Your task to perform on an android device: Search for "dell xps" on costco.com, select the first entry, add it to the cart, then select checkout. Image 0: 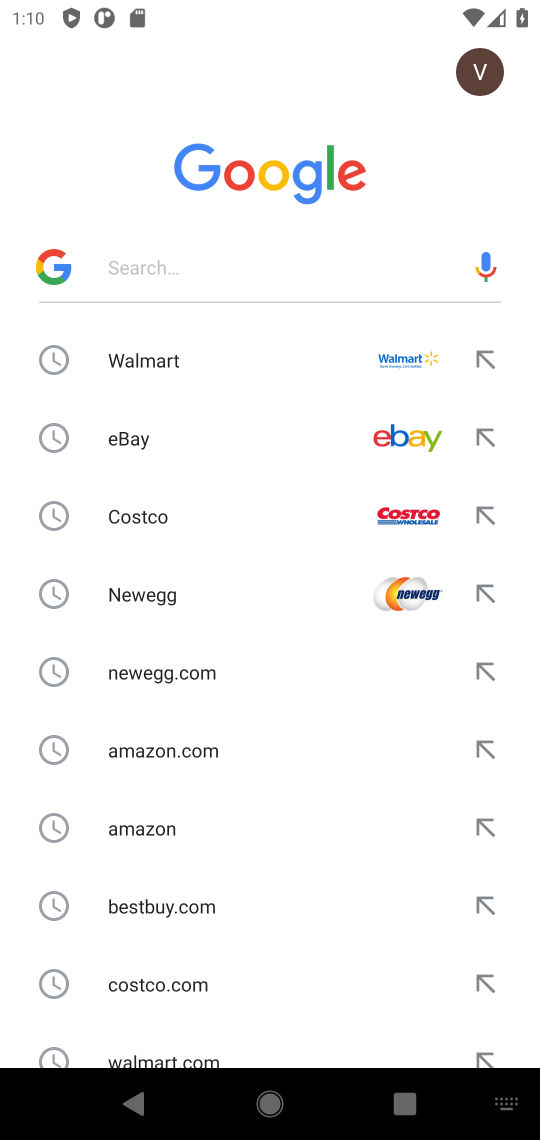
Step 0: press home button
Your task to perform on an android device: Search for "dell xps" on costco.com, select the first entry, add it to the cart, then select checkout. Image 1: 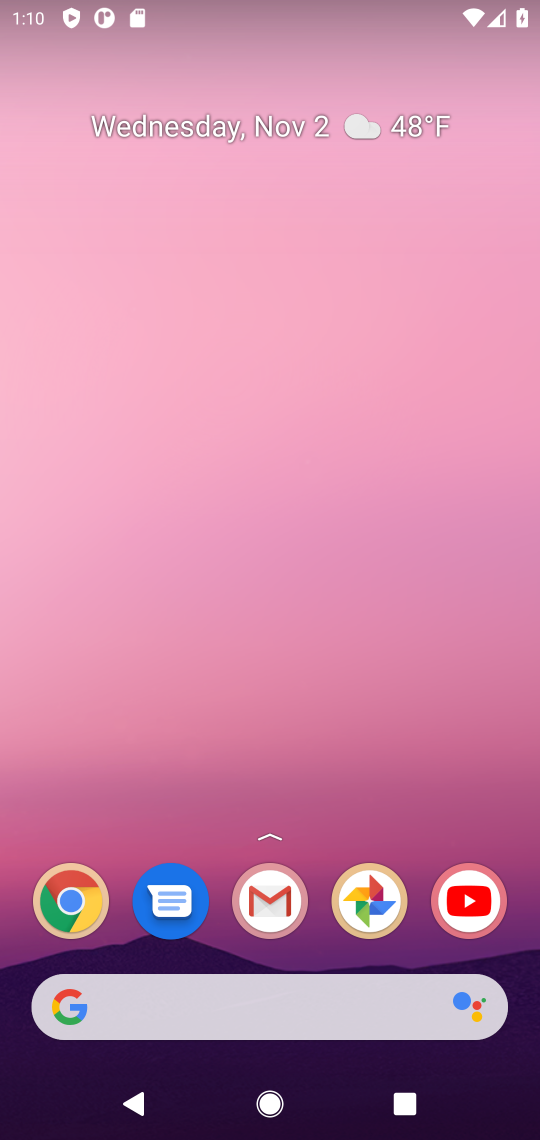
Step 1: drag from (316, 947) to (345, 194)
Your task to perform on an android device: Search for "dell xps" on costco.com, select the first entry, add it to the cart, then select checkout. Image 2: 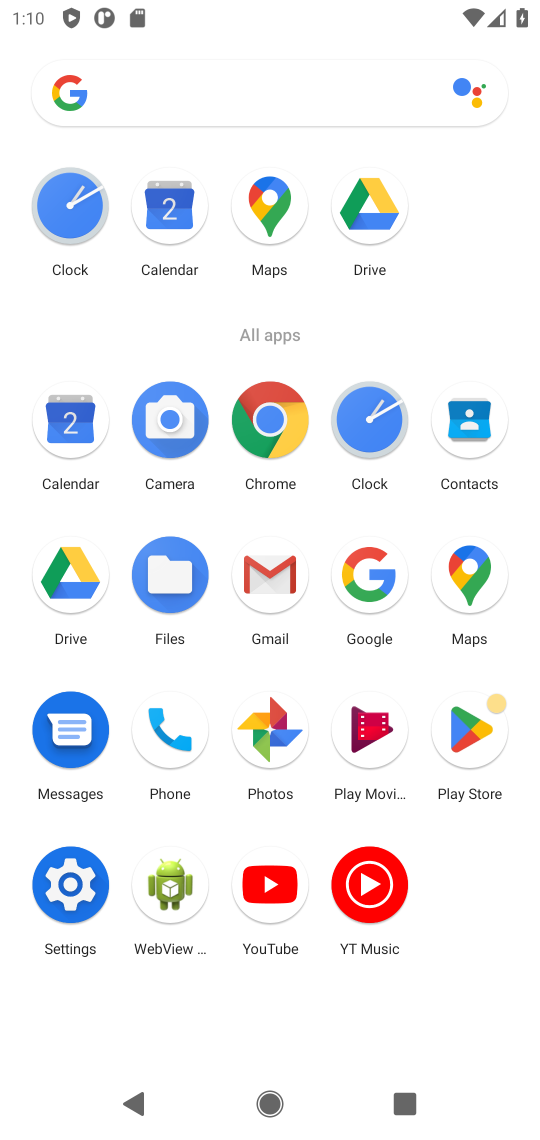
Step 2: click (253, 428)
Your task to perform on an android device: Search for "dell xps" on costco.com, select the first entry, add it to the cart, then select checkout. Image 3: 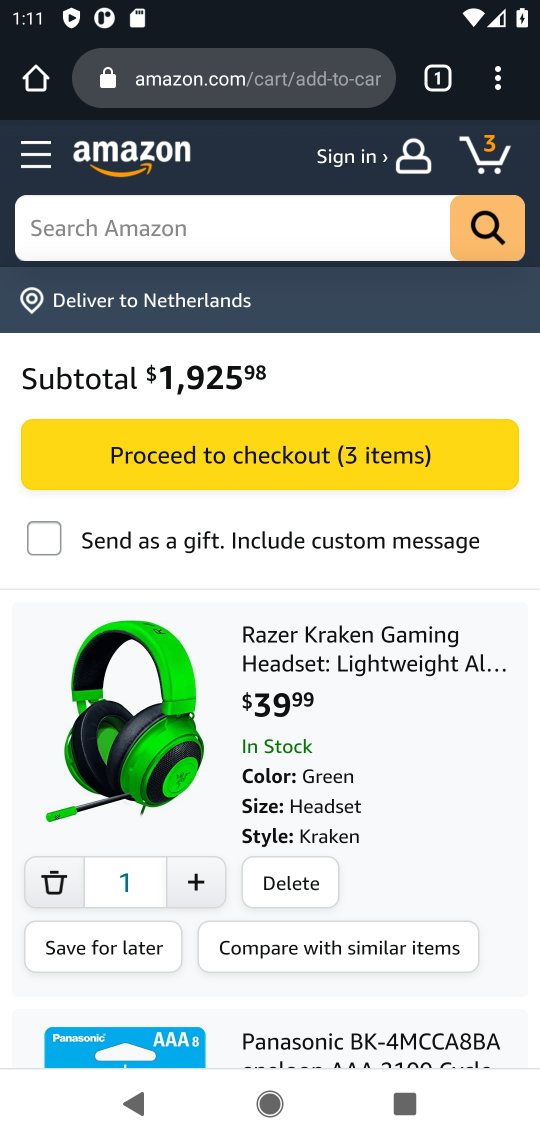
Step 3: click (250, 80)
Your task to perform on an android device: Search for "dell xps" on costco.com, select the first entry, add it to the cart, then select checkout. Image 4: 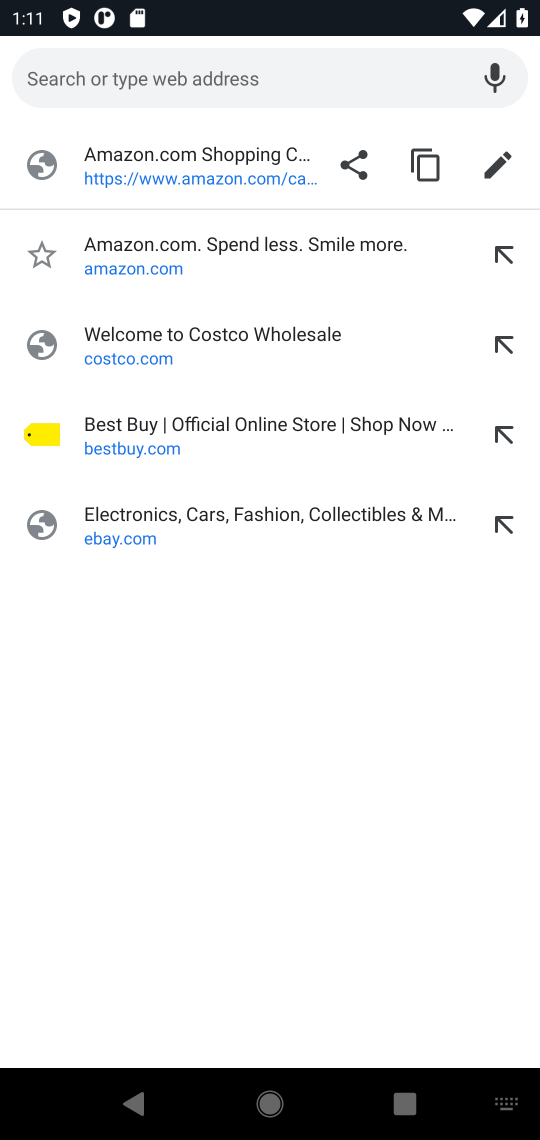
Step 4: type "costco.com"
Your task to perform on an android device: Search for "dell xps" on costco.com, select the first entry, add it to the cart, then select checkout. Image 5: 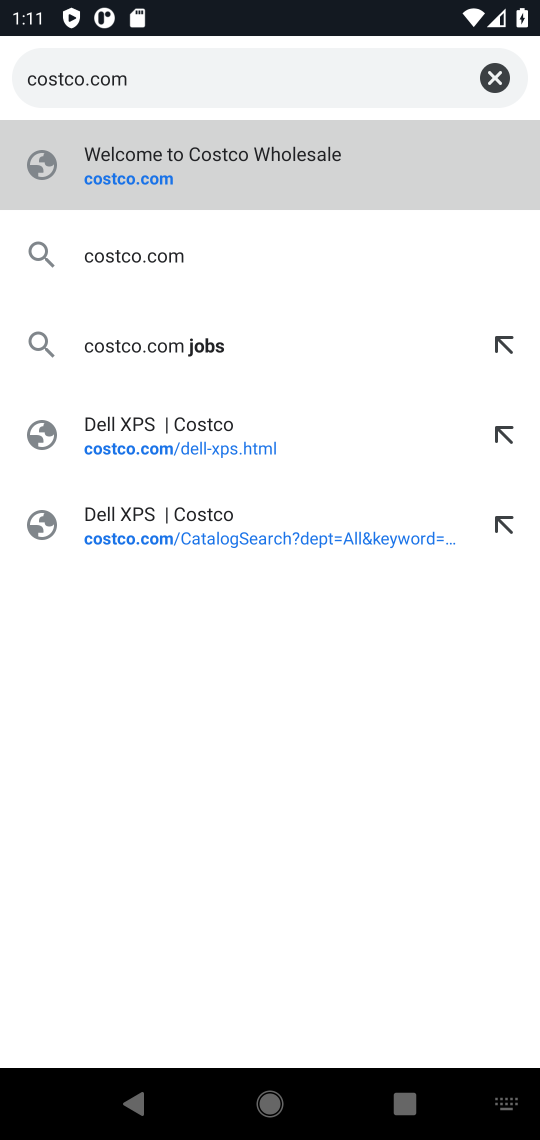
Step 5: press enter
Your task to perform on an android device: Search for "dell xps" on costco.com, select the first entry, add it to the cart, then select checkout. Image 6: 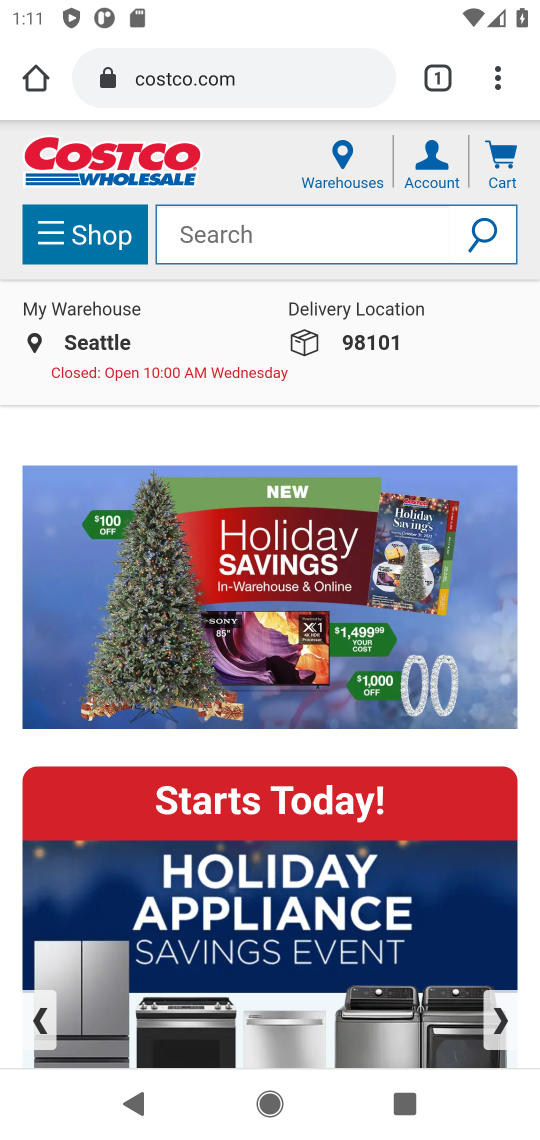
Step 6: click (379, 224)
Your task to perform on an android device: Search for "dell xps" on costco.com, select the first entry, add it to the cart, then select checkout. Image 7: 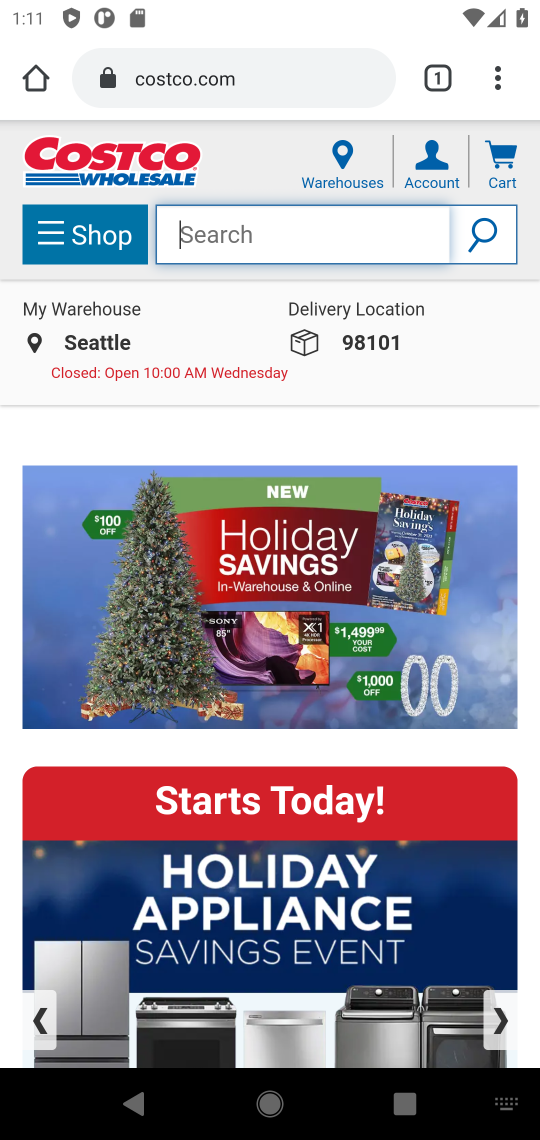
Step 7: type "dell xps"
Your task to perform on an android device: Search for "dell xps" on costco.com, select the first entry, add it to the cart, then select checkout. Image 8: 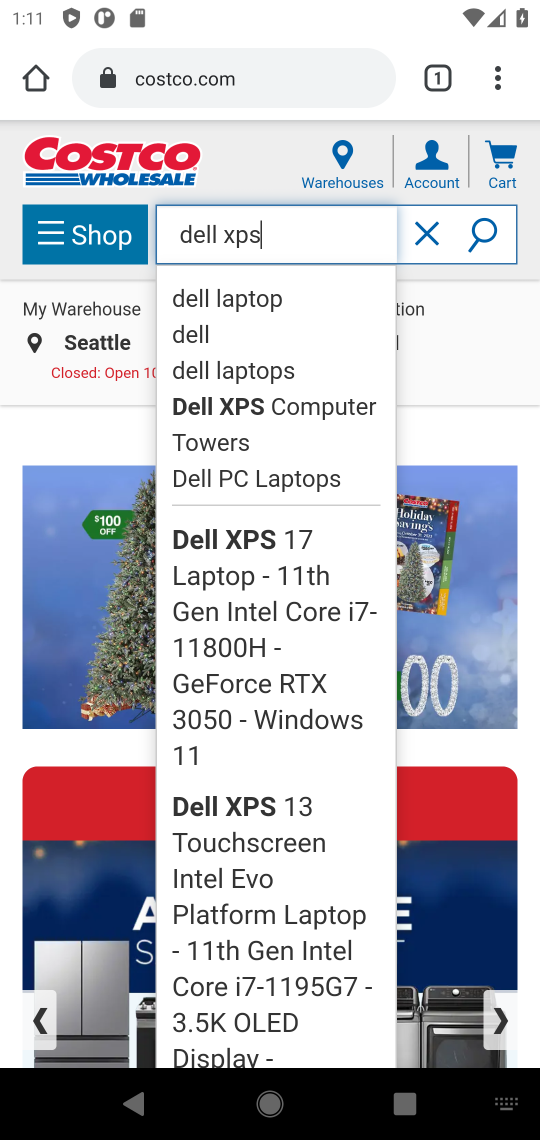
Step 8: press enter
Your task to perform on an android device: Search for "dell xps" on costco.com, select the first entry, add it to the cart, then select checkout. Image 9: 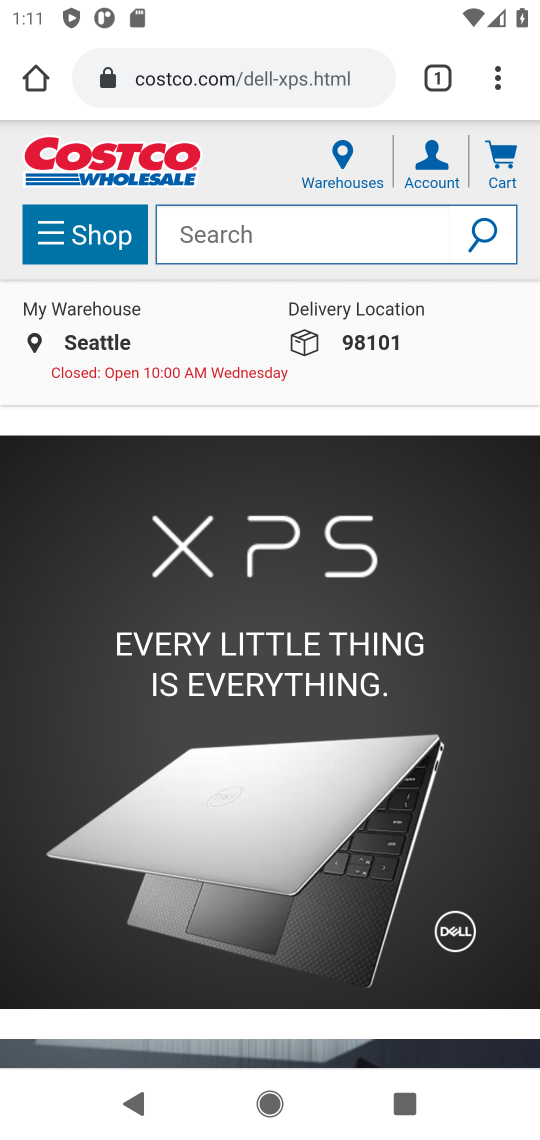
Step 9: click (284, 617)
Your task to perform on an android device: Search for "dell xps" on costco.com, select the first entry, add it to the cart, then select checkout. Image 10: 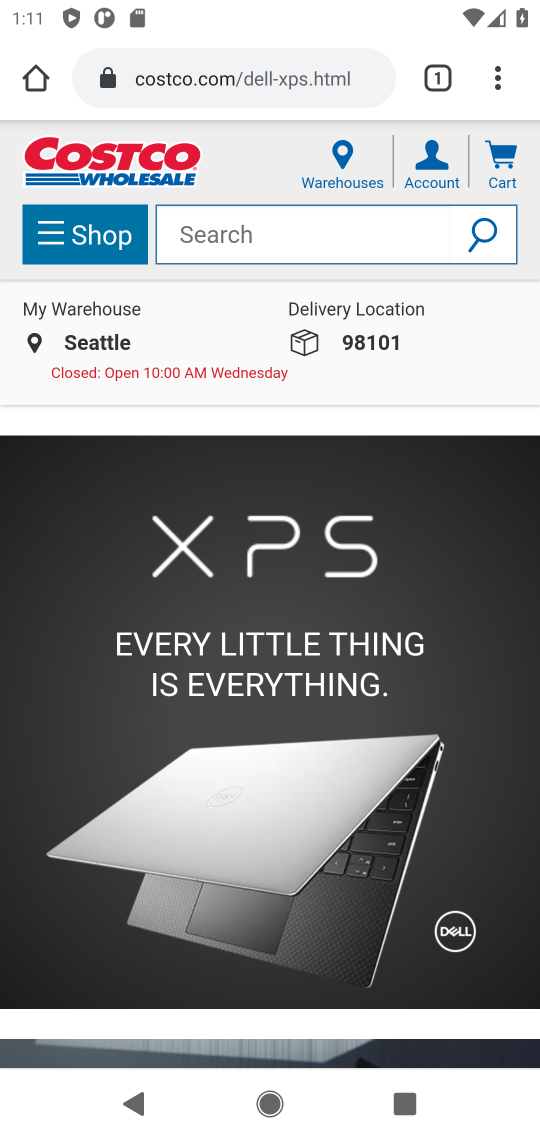
Step 10: drag from (284, 617) to (417, 7)
Your task to perform on an android device: Search for "dell xps" on costco.com, select the first entry, add it to the cart, then select checkout. Image 11: 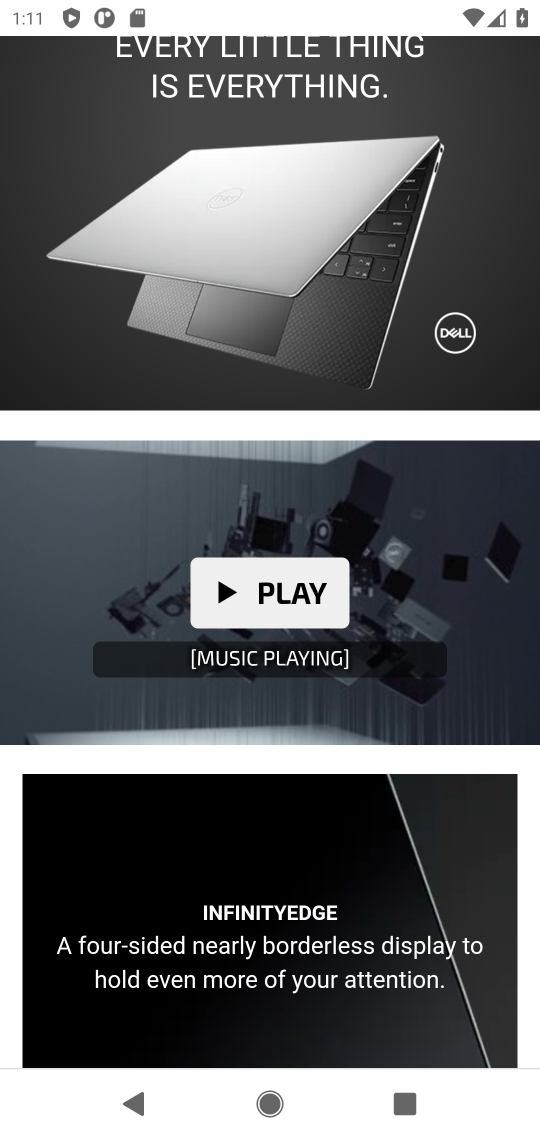
Step 11: drag from (250, 870) to (330, 66)
Your task to perform on an android device: Search for "dell xps" on costco.com, select the first entry, add it to the cart, then select checkout. Image 12: 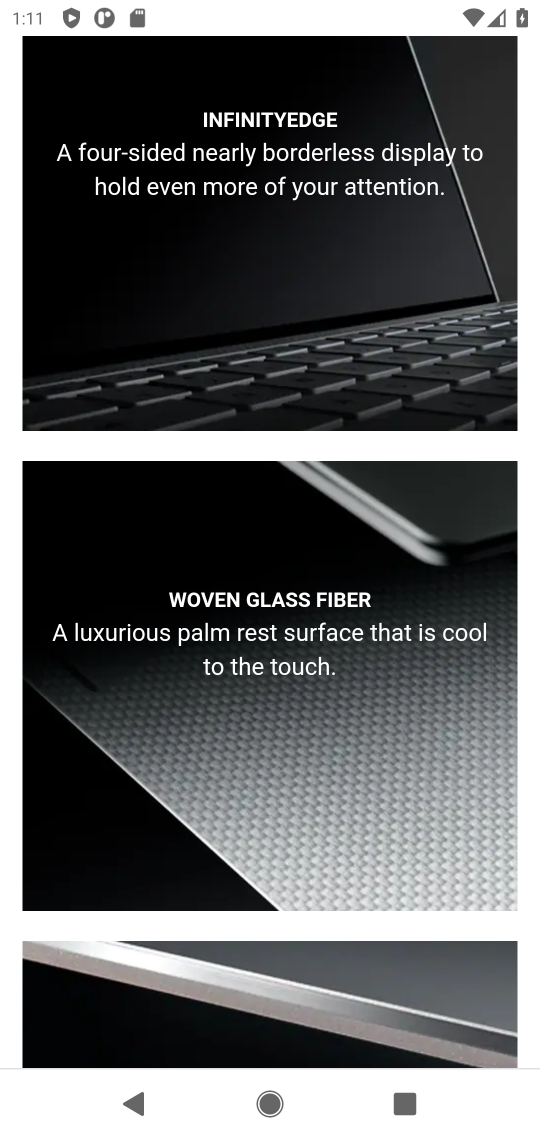
Step 12: drag from (213, 936) to (374, 246)
Your task to perform on an android device: Search for "dell xps" on costco.com, select the first entry, add it to the cart, then select checkout. Image 13: 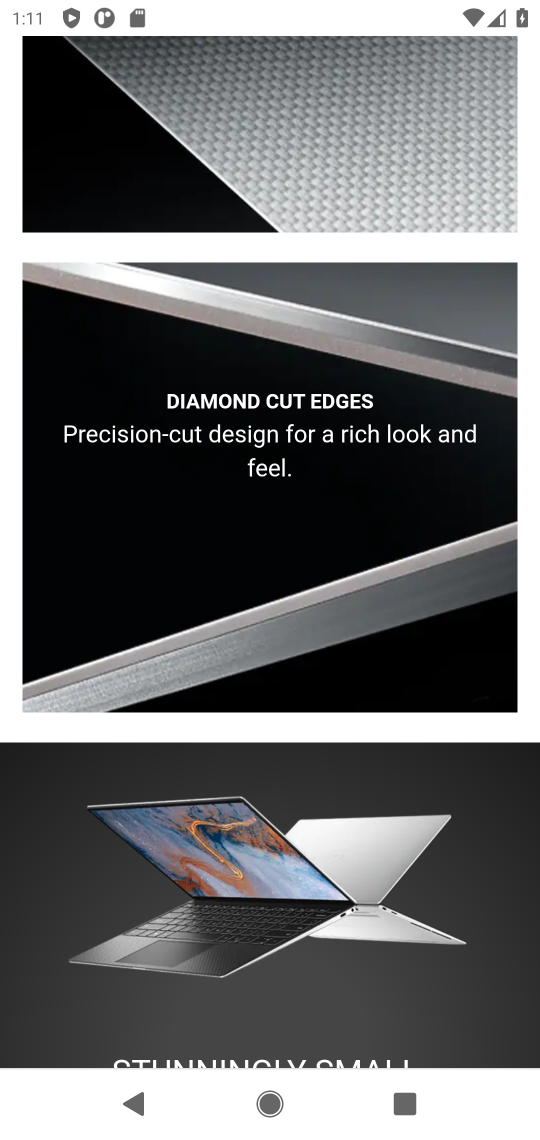
Step 13: drag from (216, 897) to (309, 384)
Your task to perform on an android device: Search for "dell xps" on costco.com, select the first entry, add it to the cart, then select checkout. Image 14: 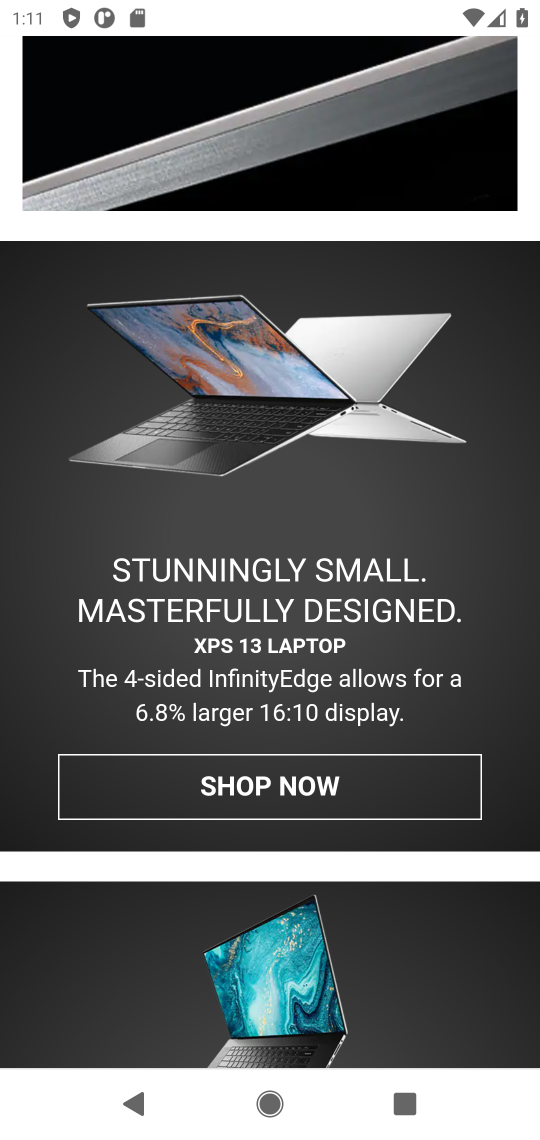
Step 14: click (300, 800)
Your task to perform on an android device: Search for "dell xps" on costco.com, select the first entry, add it to the cart, then select checkout. Image 15: 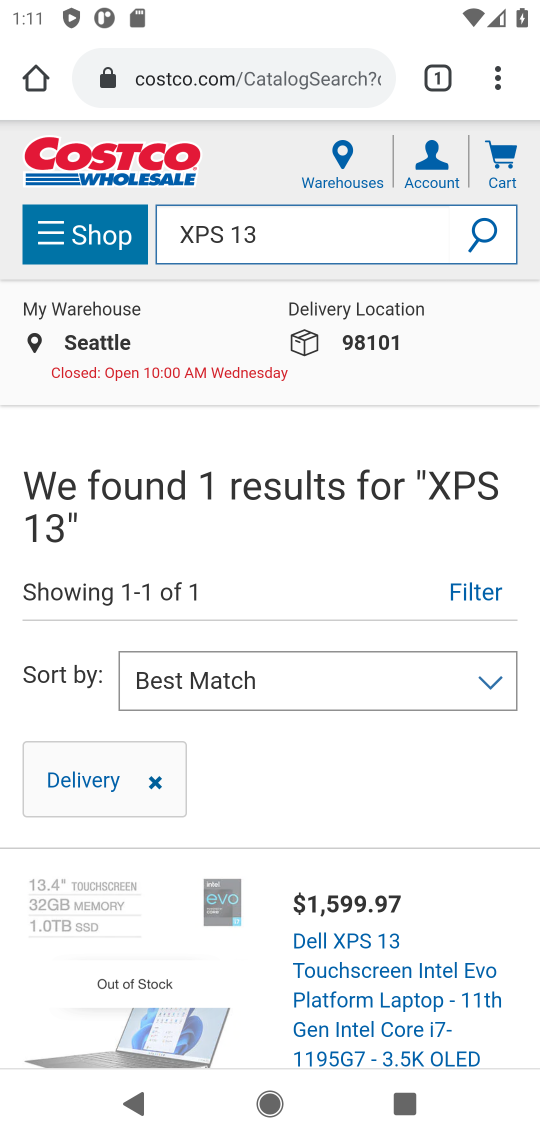
Step 15: drag from (372, 996) to (372, 705)
Your task to perform on an android device: Search for "dell xps" on costco.com, select the first entry, add it to the cart, then select checkout. Image 16: 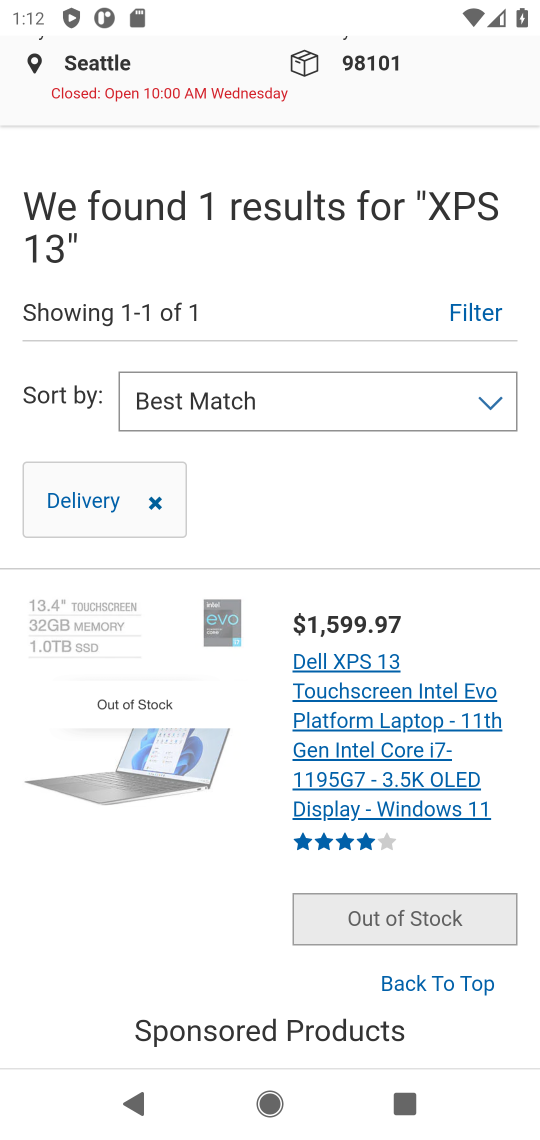
Step 16: click (371, 710)
Your task to perform on an android device: Search for "dell xps" on costco.com, select the first entry, add it to the cart, then select checkout. Image 17: 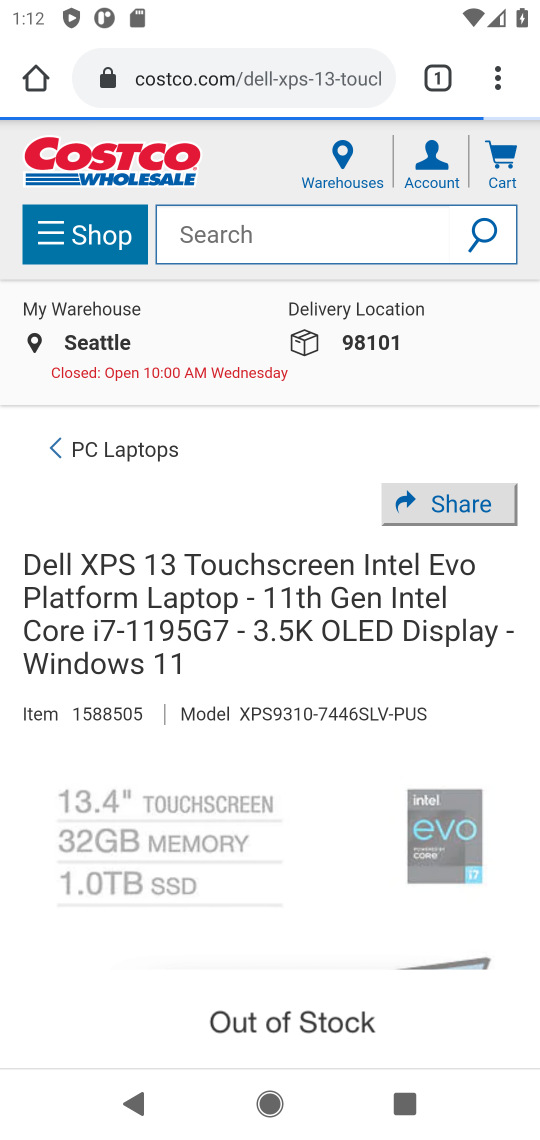
Step 17: task complete